Your task to perform on an android device: Open Yahoo.com Image 0: 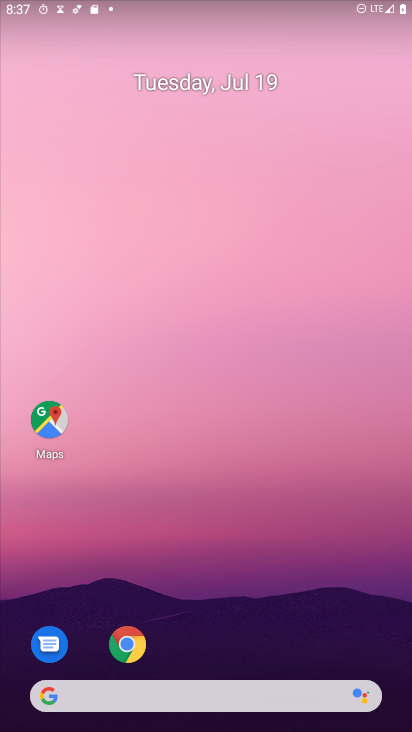
Step 0: click (111, 700)
Your task to perform on an android device: Open Yahoo.com Image 1: 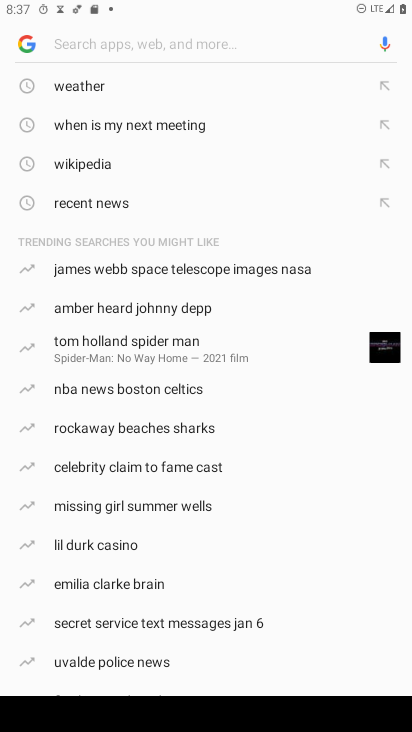
Step 1: type "Yahoo.com"
Your task to perform on an android device: Open Yahoo.com Image 2: 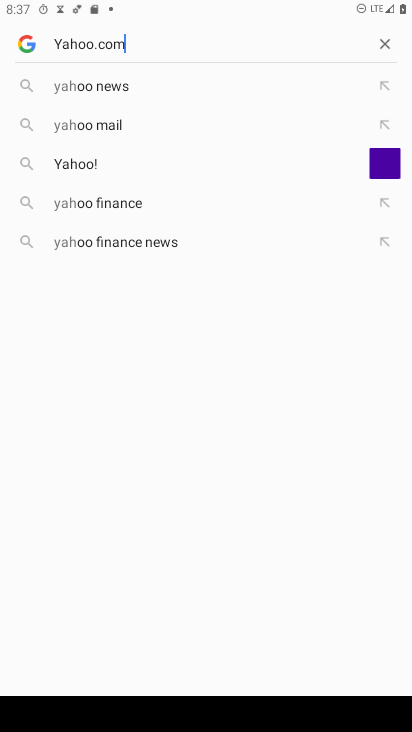
Step 2: type ""
Your task to perform on an android device: Open Yahoo.com Image 3: 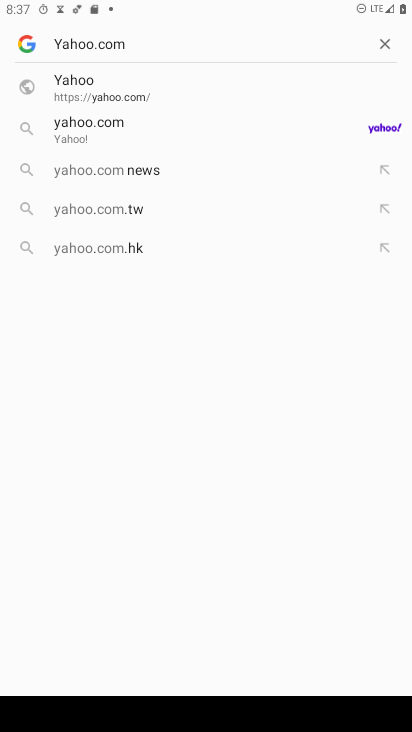
Step 3: click (101, 92)
Your task to perform on an android device: Open Yahoo.com Image 4: 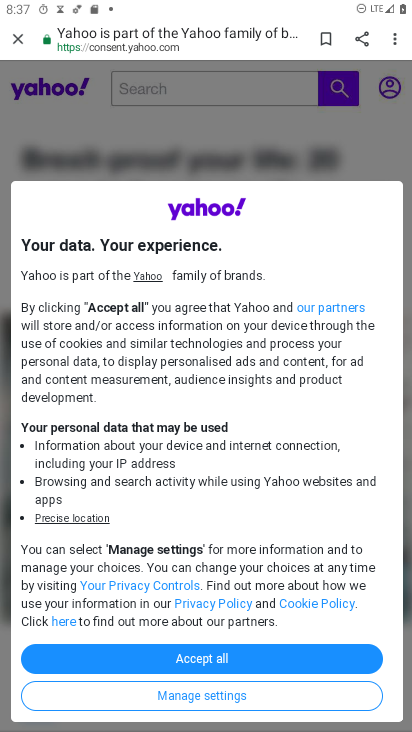
Step 4: task complete